Your task to perform on an android device: open device folders in google photos Image 0: 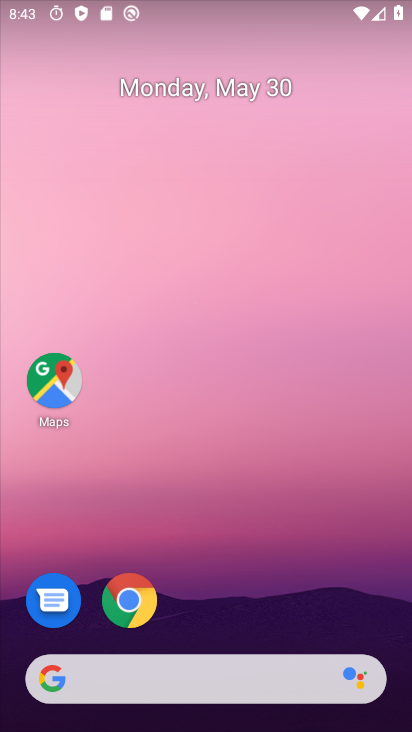
Step 0: drag from (312, 575) to (210, 21)
Your task to perform on an android device: open device folders in google photos Image 1: 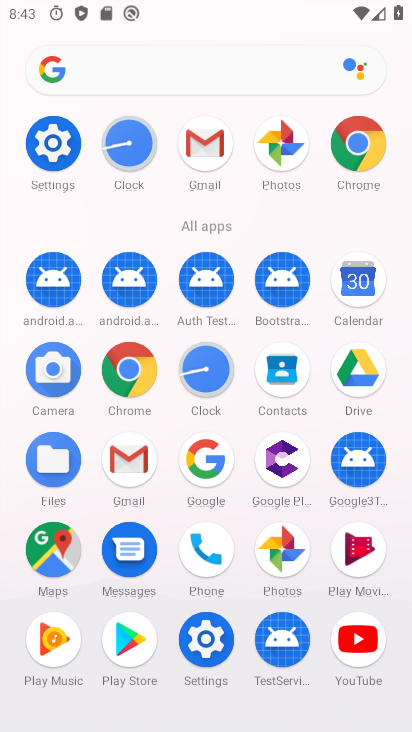
Step 1: drag from (9, 517) to (18, 205)
Your task to perform on an android device: open device folders in google photos Image 2: 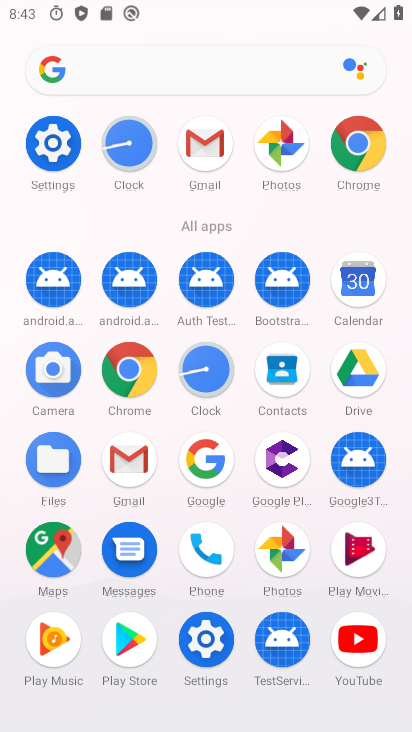
Step 2: click (282, 547)
Your task to perform on an android device: open device folders in google photos Image 3: 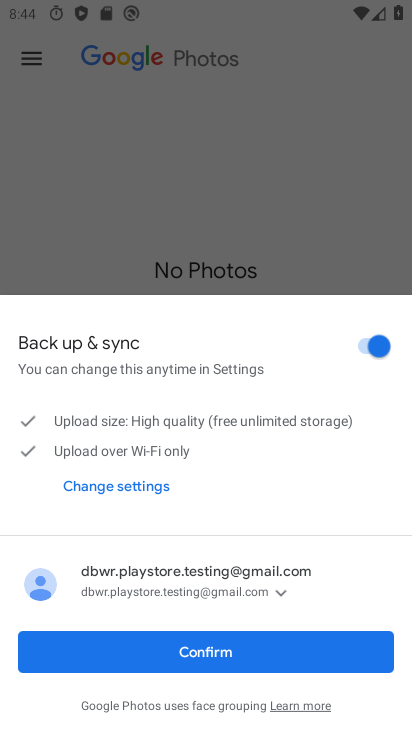
Step 3: press back button
Your task to perform on an android device: open device folders in google photos Image 4: 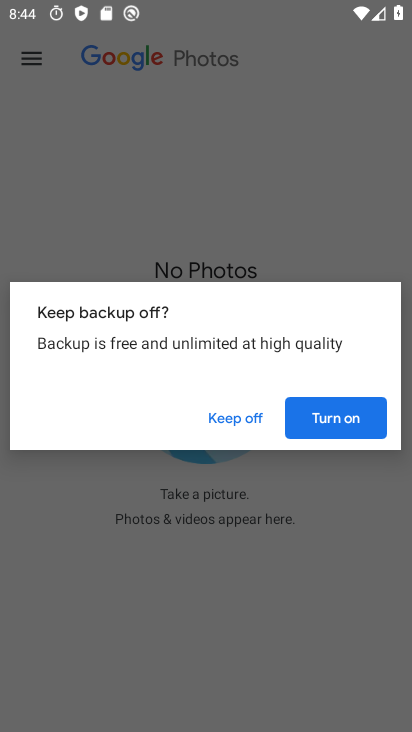
Step 4: click (319, 414)
Your task to perform on an android device: open device folders in google photos Image 5: 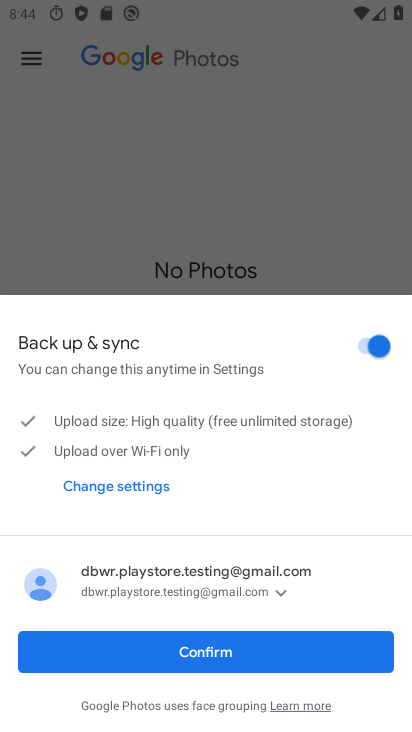
Step 5: click (246, 656)
Your task to perform on an android device: open device folders in google photos Image 6: 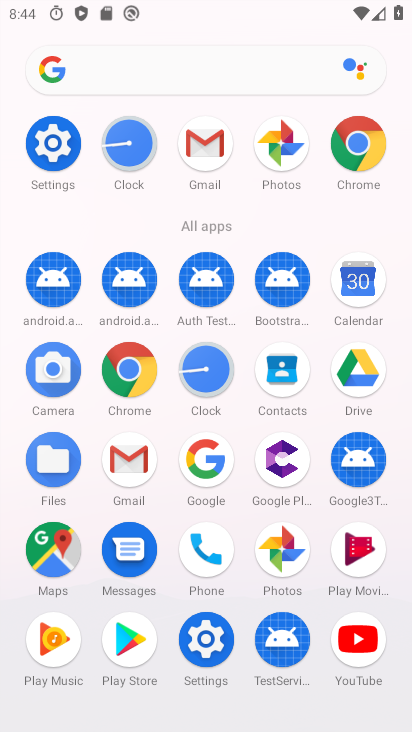
Step 6: click (279, 545)
Your task to perform on an android device: open device folders in google photos Image 7: 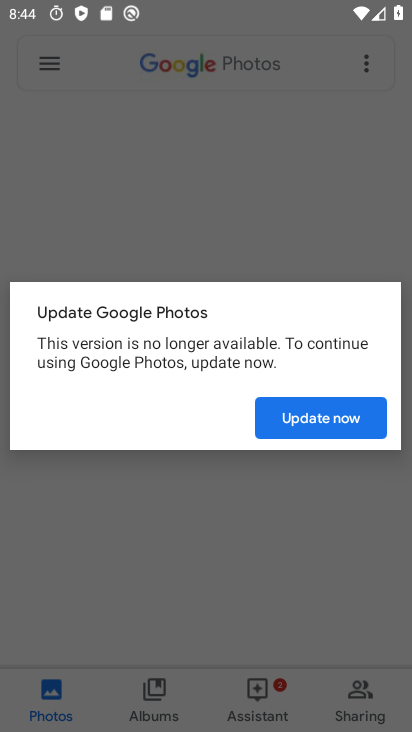
Step 7: click (334, 417)
Your task to perform on an android device: open device folders in google photos Image 8: 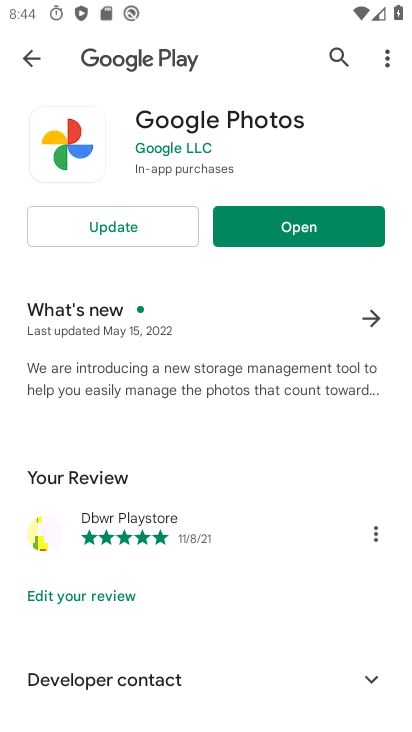
Step 8: click (124, 211)
Your task to perform on an android device: open device folders in google photos Image 9: 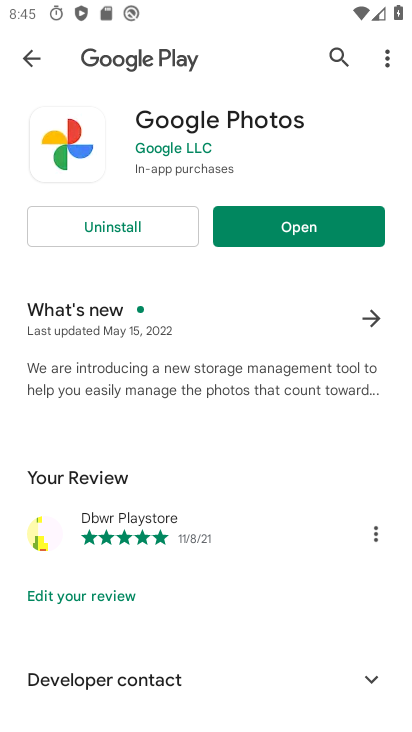
Step 9: click (289, 239)
Your task to perform on an android device: open device folders in google photos Image 10: 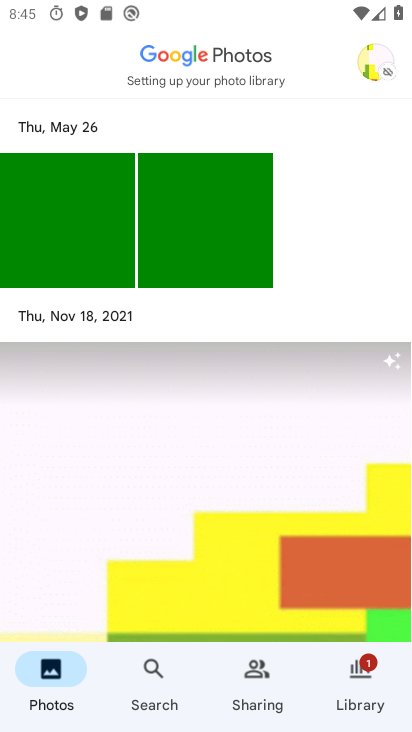
Step 10: click (369, 51)
Your task to perform on an android device: open device folders in google photos Image 11: 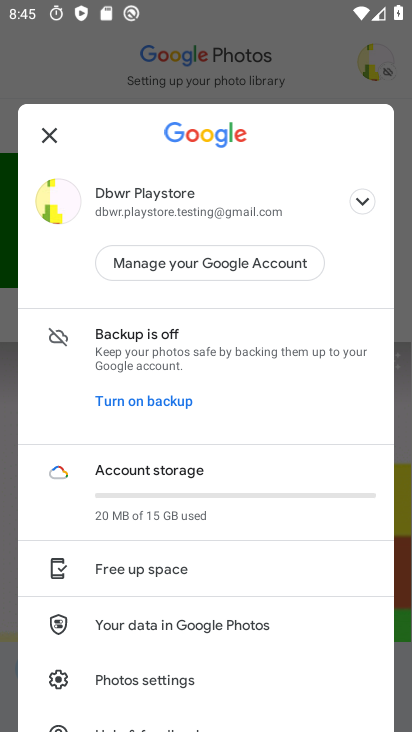
Step 11: click (139, 682)
Your task to perform on an android device: open device folders in google photos Image 12: 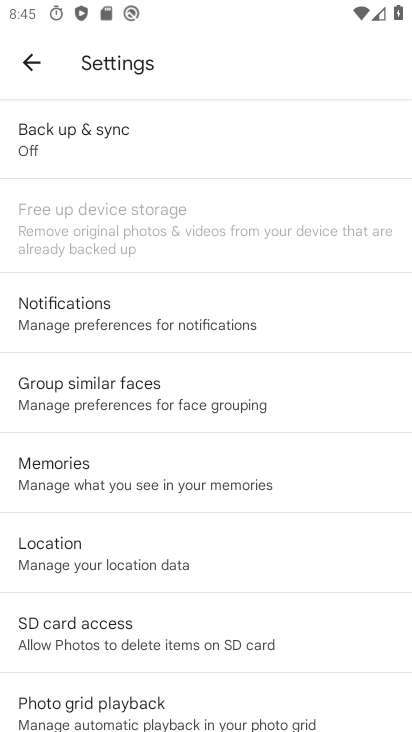
Step 12: task complete